Your task to perform on an android device: Clear the shopping cart on walmart.com. Image 0: 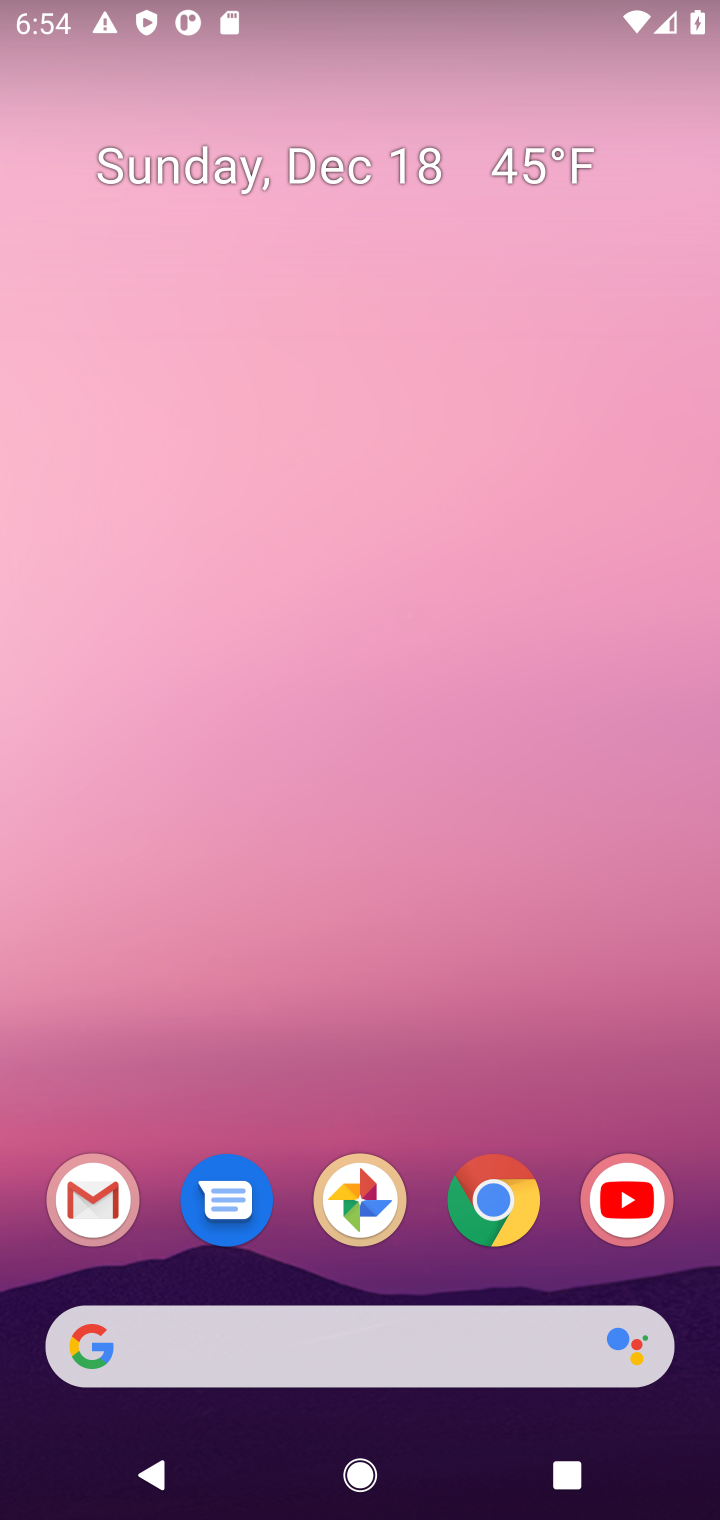
Step 0: click (509, 1192)
Your task to perform on an android device: Clear the shopping cart on walmart.com. Image 1: 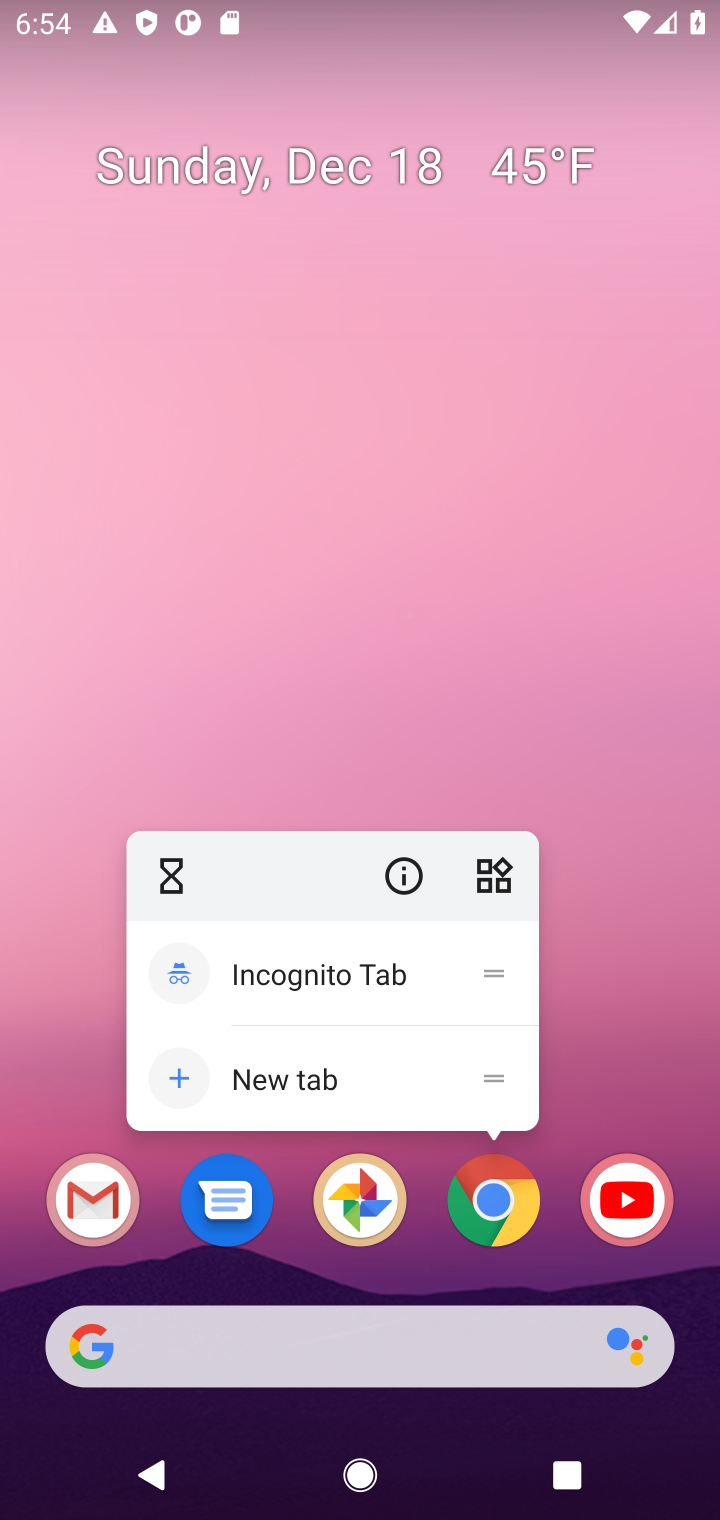
Step 1: click (494, 1218)
Your task to perform on an android device: Clear the shopping cart on walmart.com. Image 2: 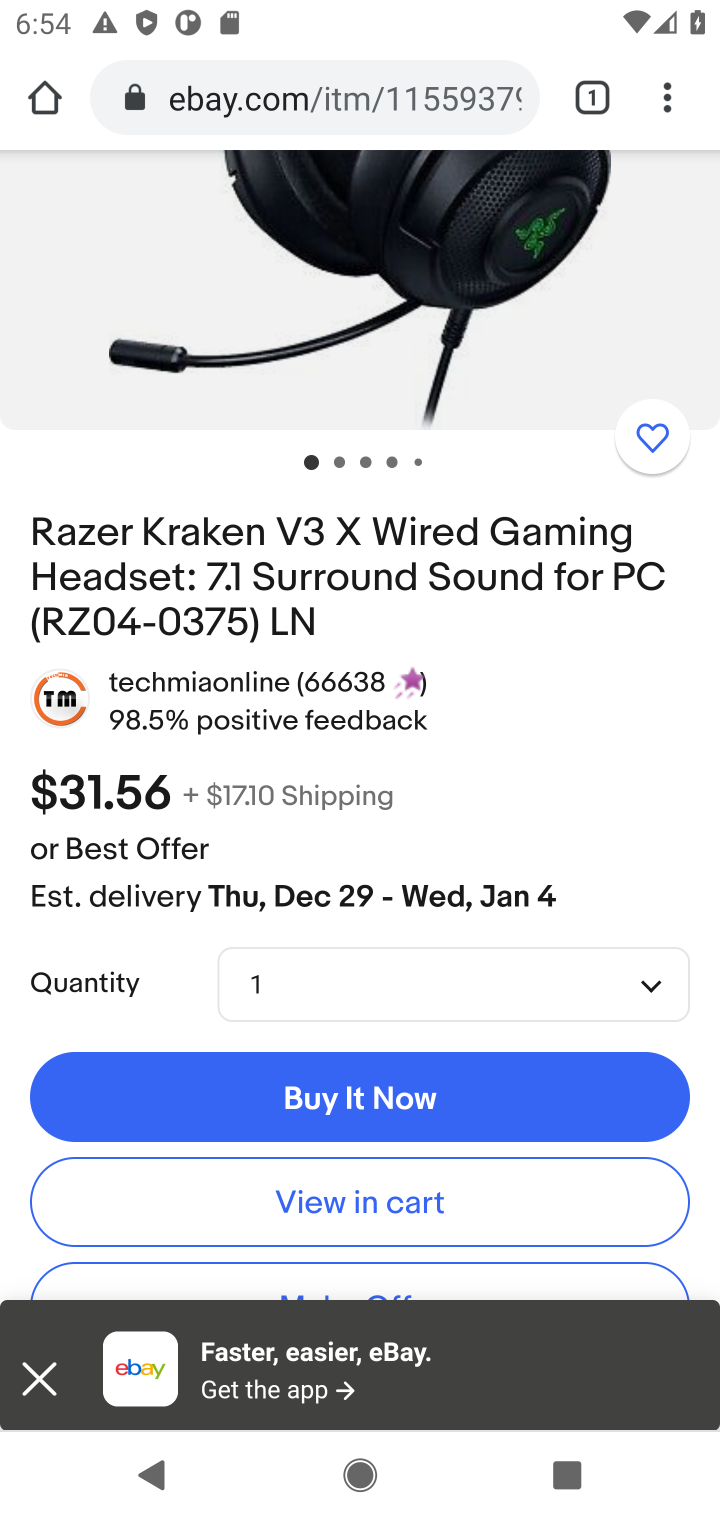
Step 2: click (291, 99)
Your task to perform on an android device: Clear the shopping cart on walmart.com. Image 3: 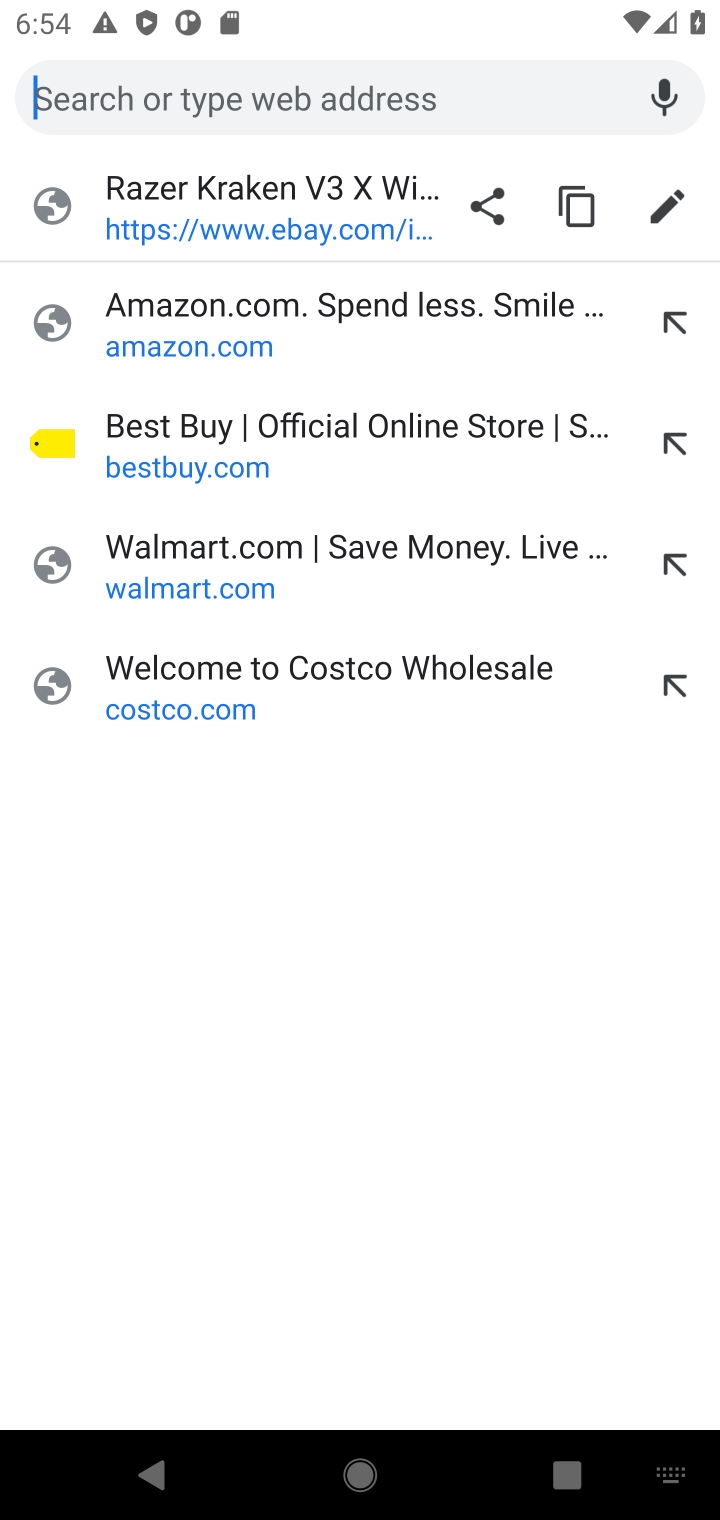
Step 3: click (195, 568)
Your task to perform on an android device: Clear the shopping cart on walmart.com. Image 4: 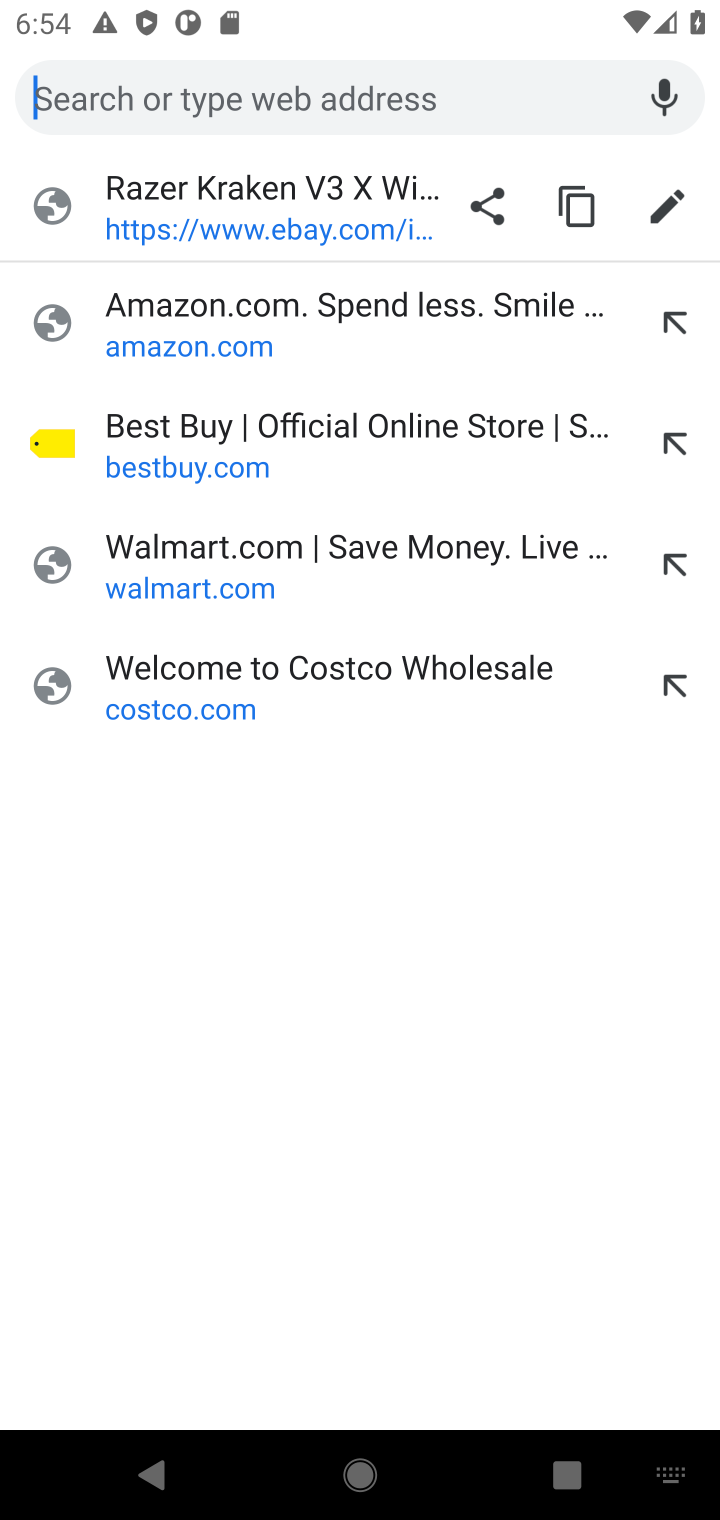
Step 4: click (133, 589)
Your task to perform on an android device: Clear the shopping cart on walmart.com. Image 5: 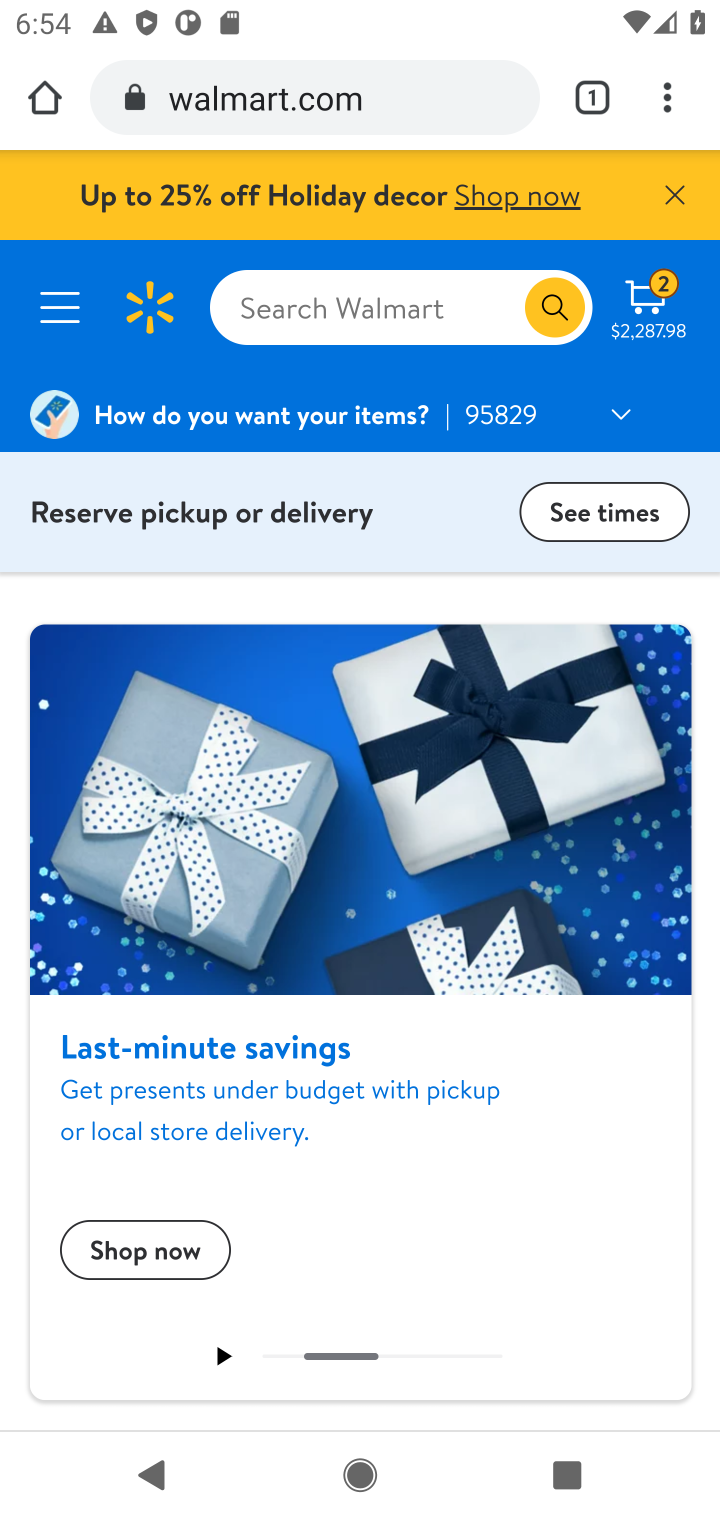
Step 5: click (654, 305)
Your task to perform on an android device: Clear the shopping cart on walmart.com. Image 6: 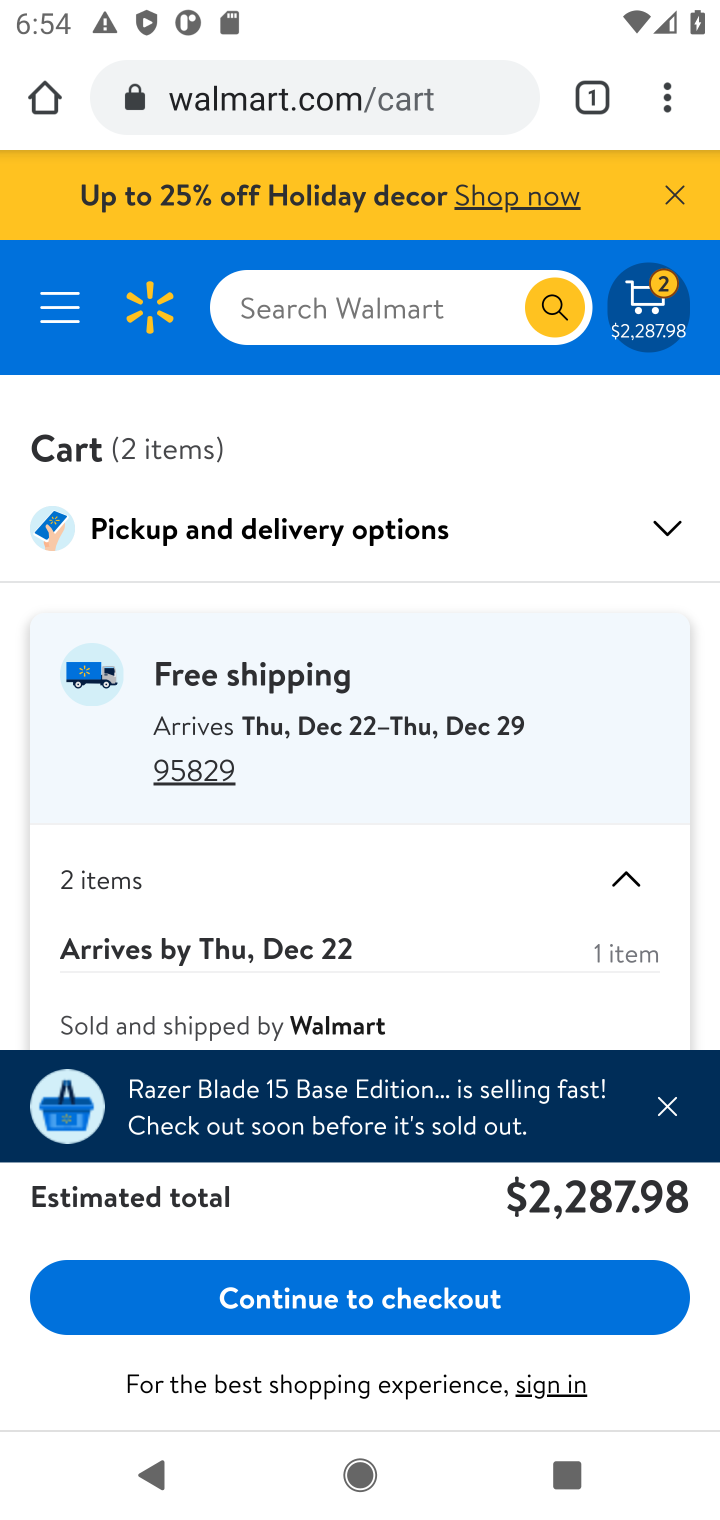
Step 6: click (665, 1112)
Your task to perform on an android device: Clear the shopping cart on walmart.com. Image 7: 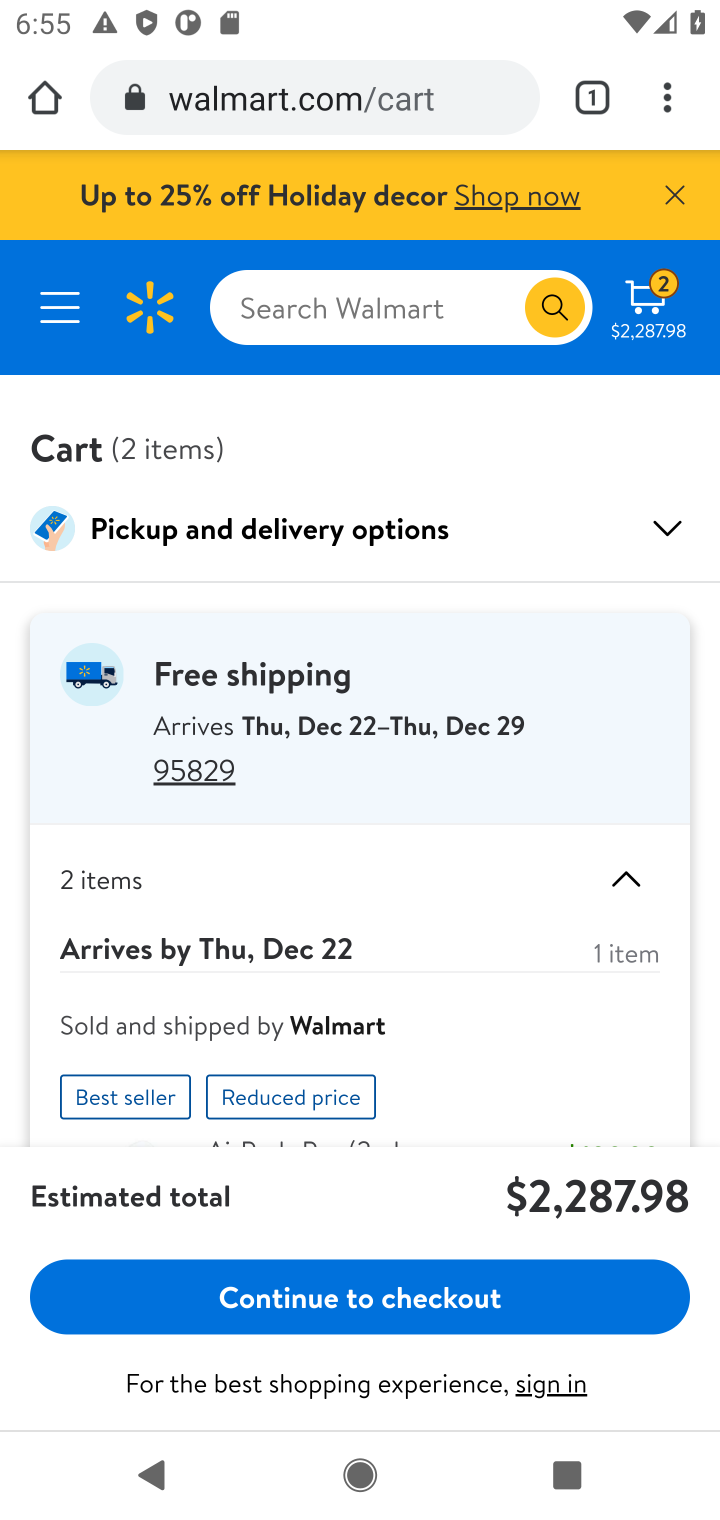
Step 7: drag from (267, 869) to (299, 420)
Your task to perform on an android device: Clear the shopping cart on walmart.com. Image 8: 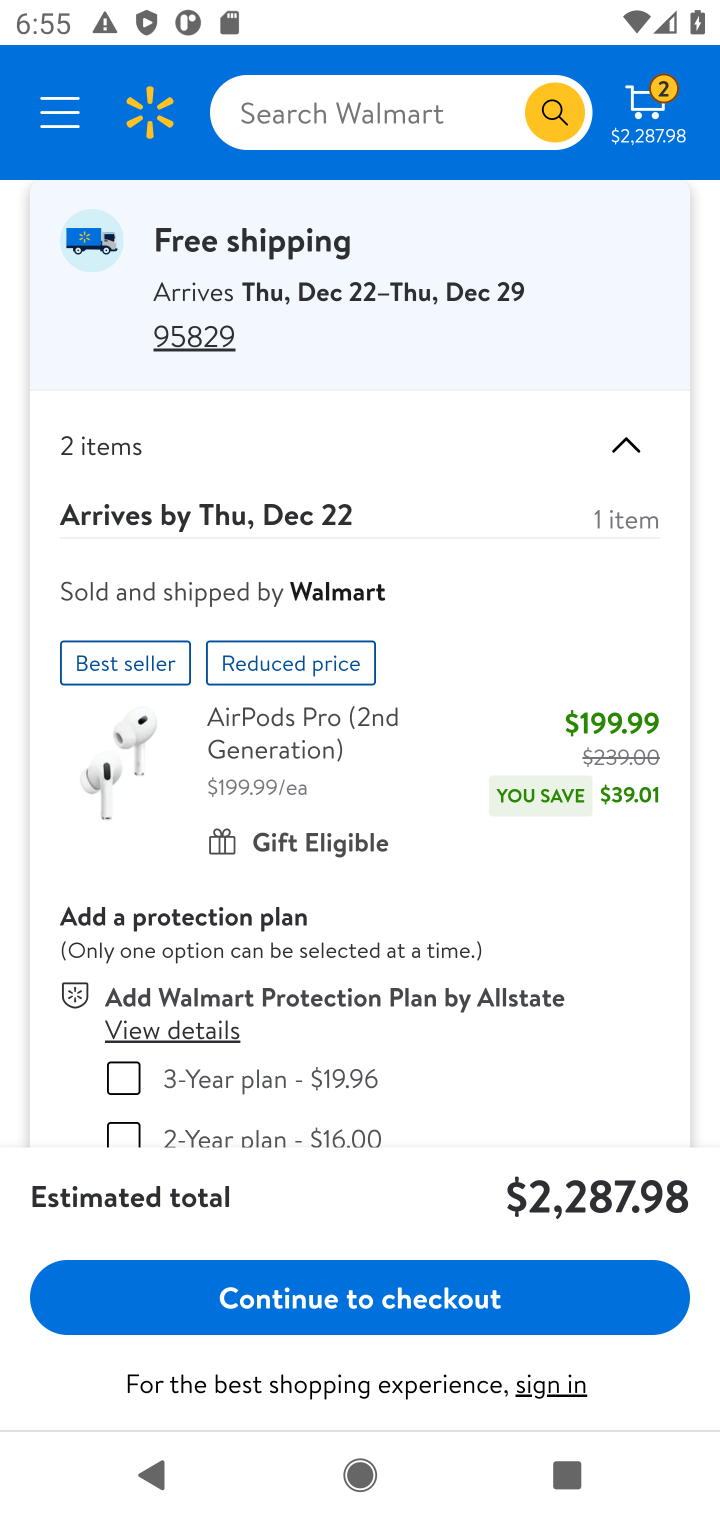
Step 8: drag from (136, 953) to (161, 421)
Your task to perform on an android device: Clear the shopping cart on walmart.com. Image 9: 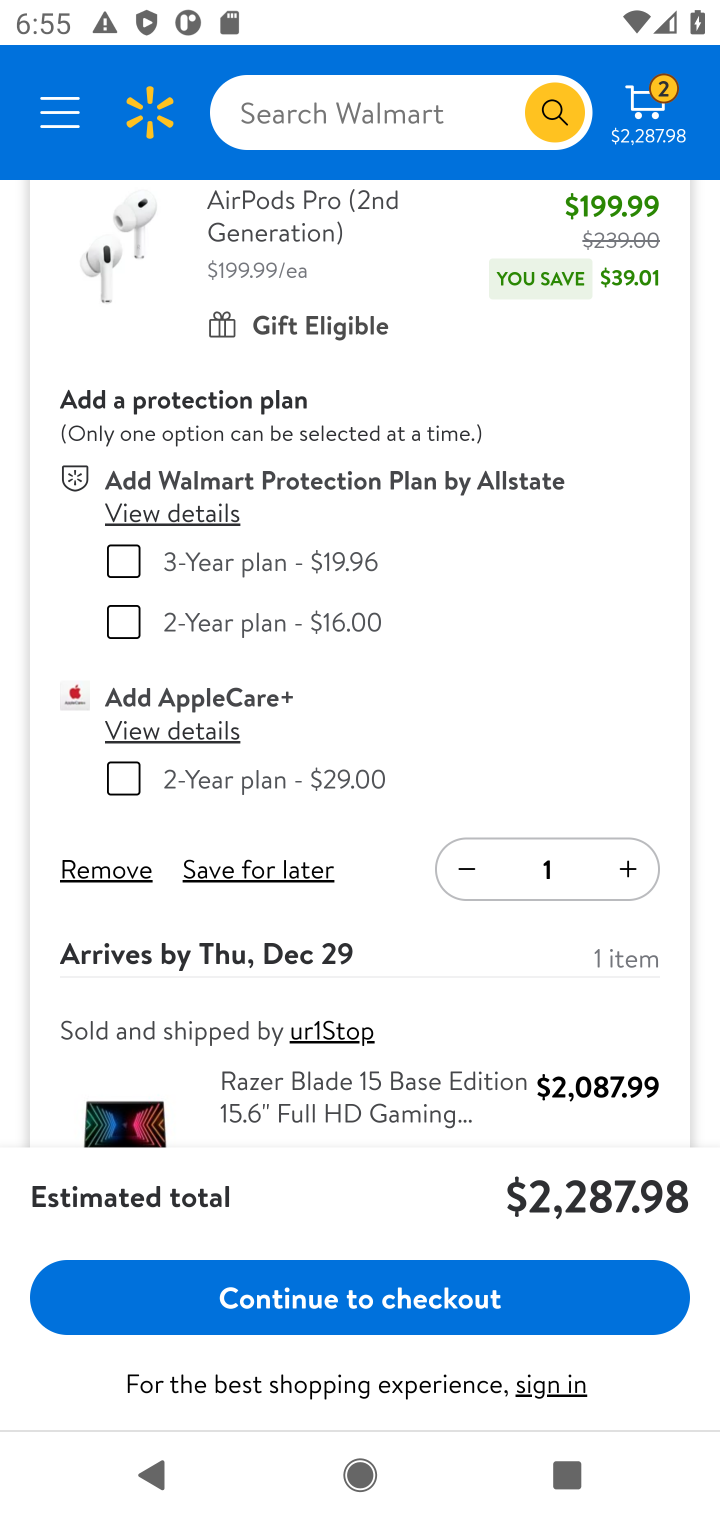
Step 9: click (104, 872)
Your task to perform on an android device: Clear the shopping cart on walmart.com. Image 10: 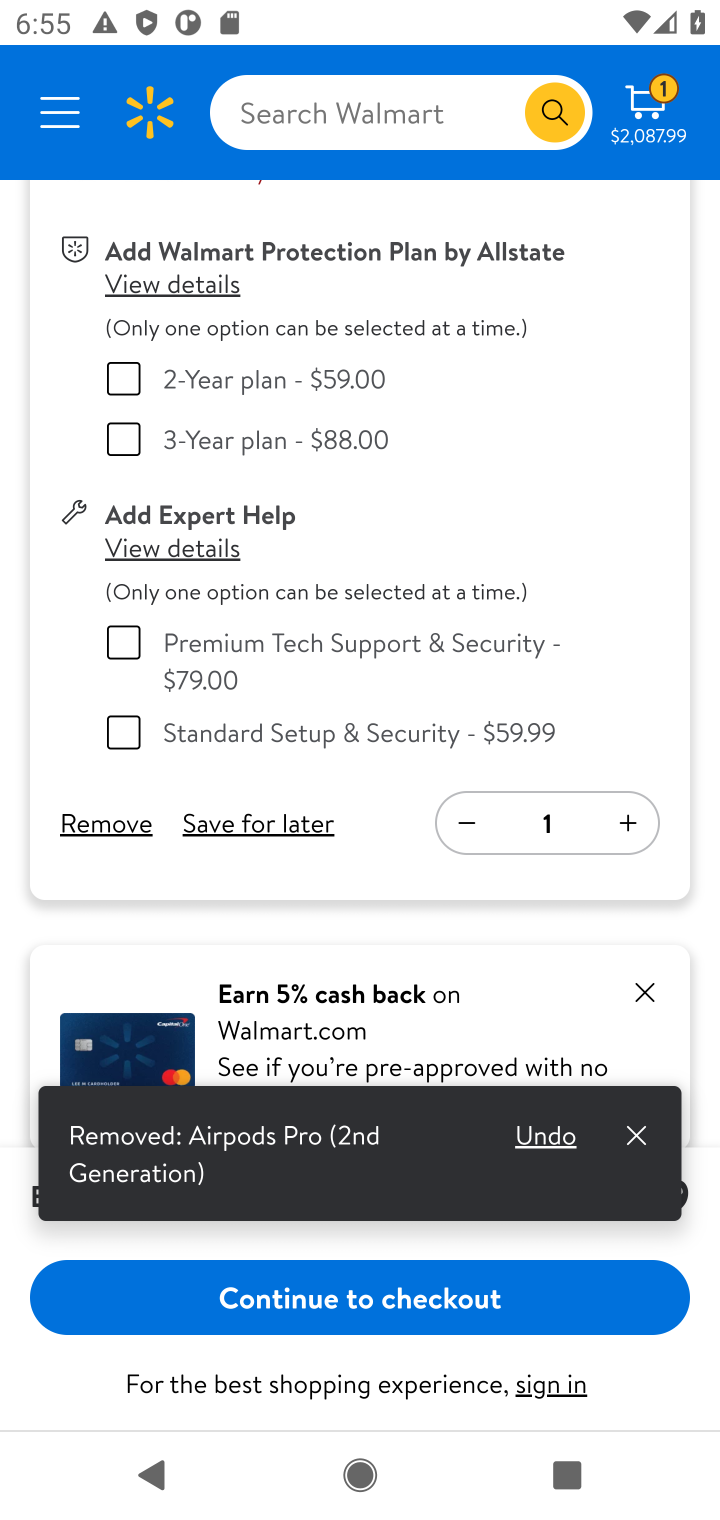
Step 10: click (100, 821)
Your task to perform on an android device: Clear the shopping cart on walmart.com. Image 11: 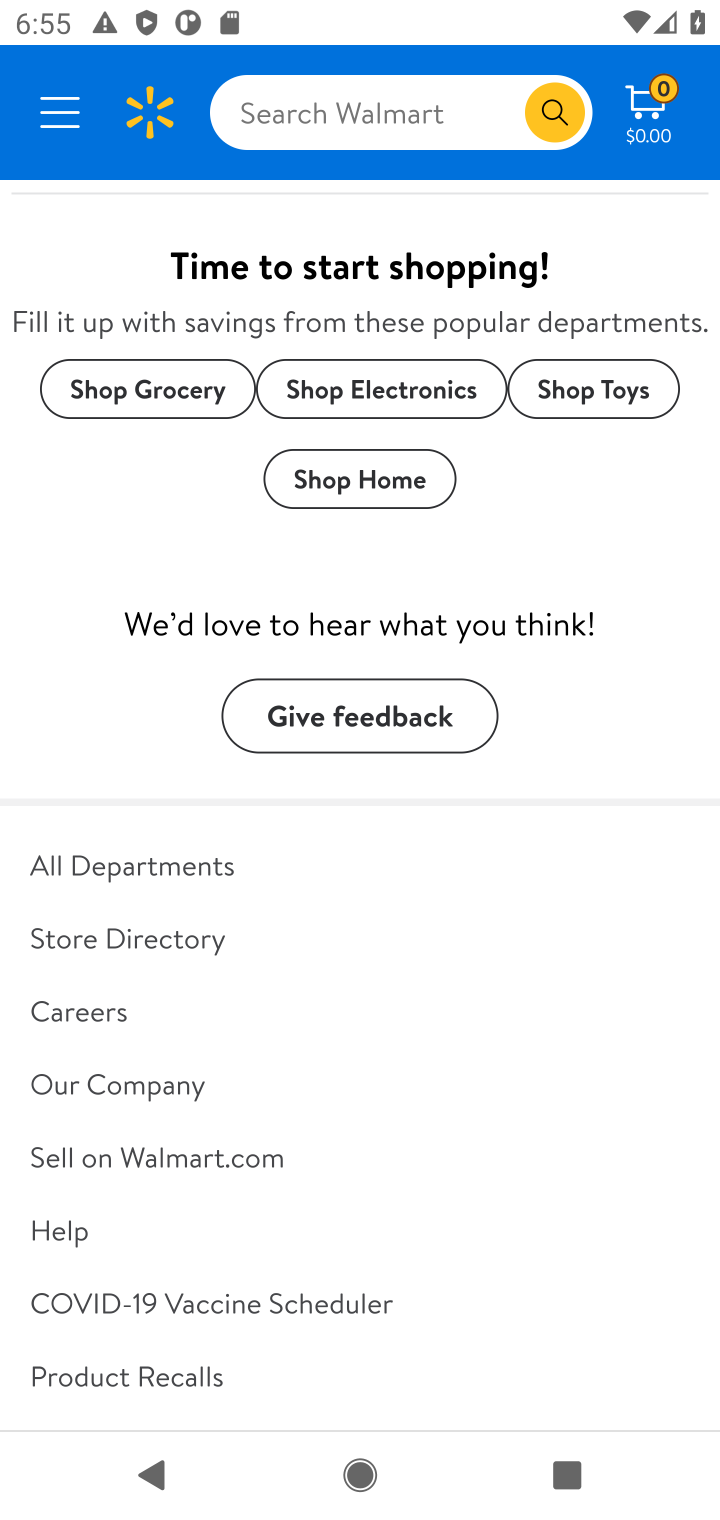
Step 11: task complete